Your task to perform on an android device: manage bookmarks in the chrome app Image 0: 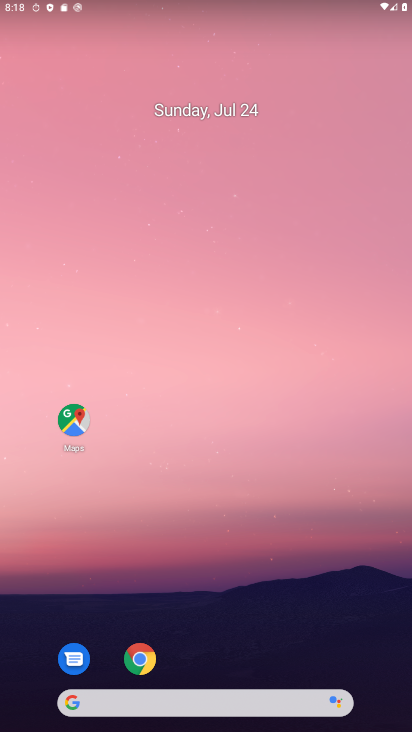
Step 0: drag from (321, 715) to (278, 191)
Your task to perform on an android device: manage bookmarks in the chrome app Image 1: 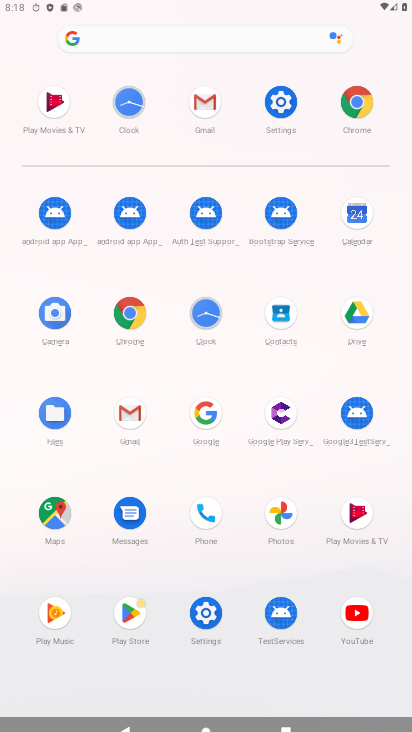
Step 1: click (357, 97)
Your task to perform on an android device: manage bookmarks in the chrome app Image 2: 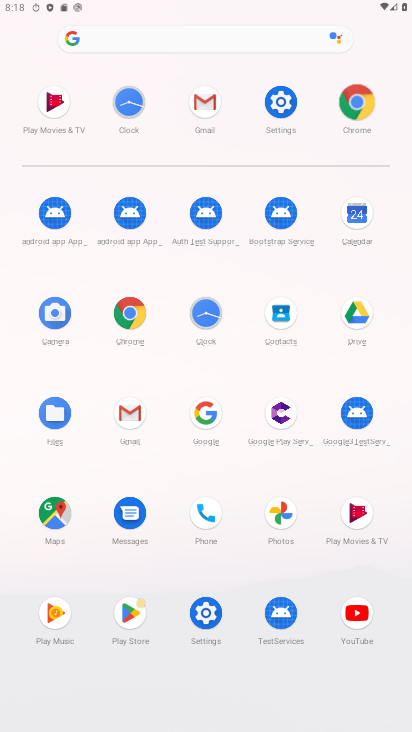
Step 2: click (357, 96)
Your task to perform on an android device: manage bookmarks in the chrome app Image 3: 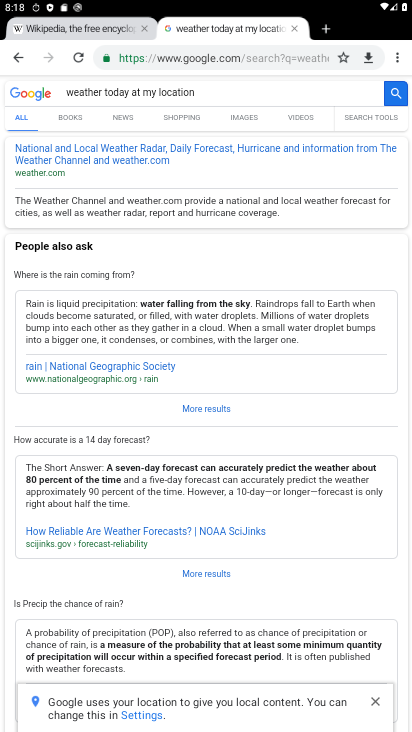
Step 3: click (401, 51)
Your task to perform on an android device: manage bookmarks in the chrome app Image 4: 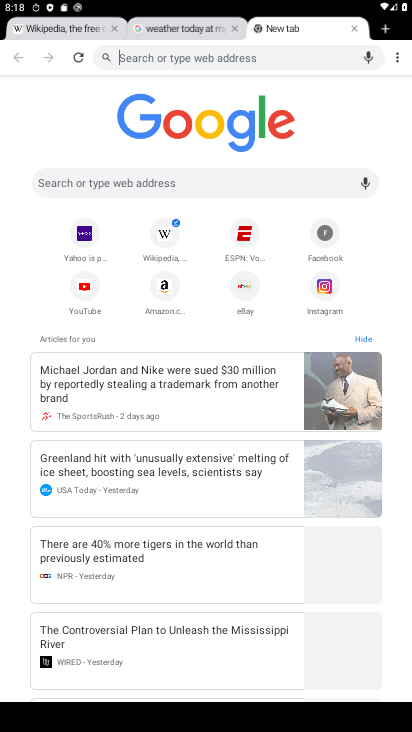
Step 4: drag from (395, 56) to (278, 110)
Your task to perform on an android device: manage bookmarks in the chrome app Image 5: 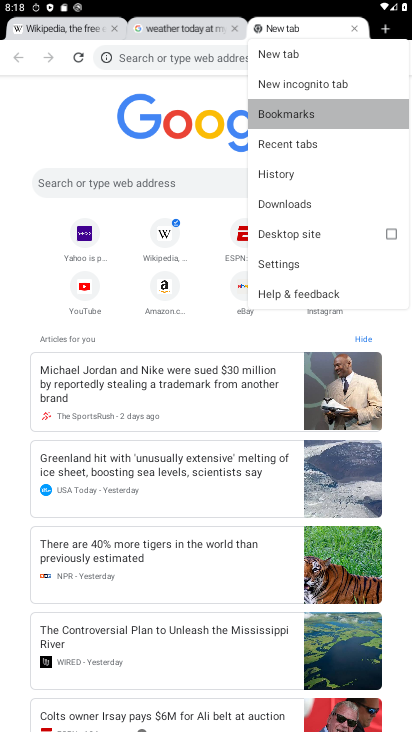
Step 5: click (278, 110)
Your task to perform on an android device: manage bookmarks in the chrome app Image 6: 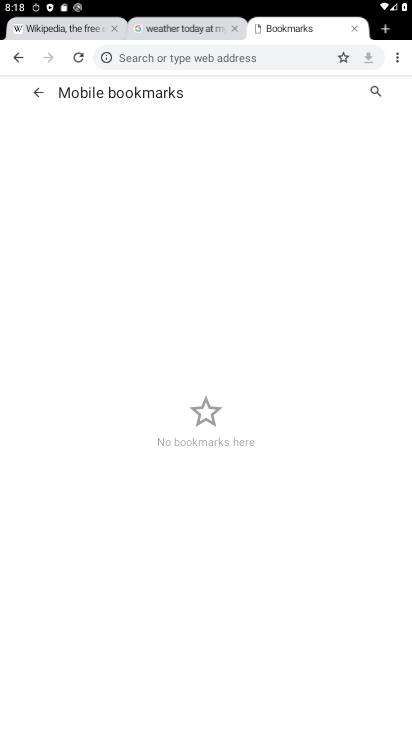
Step 6: task complete